Your task to perform on an android device: toggle improve location accuracy Image 0: 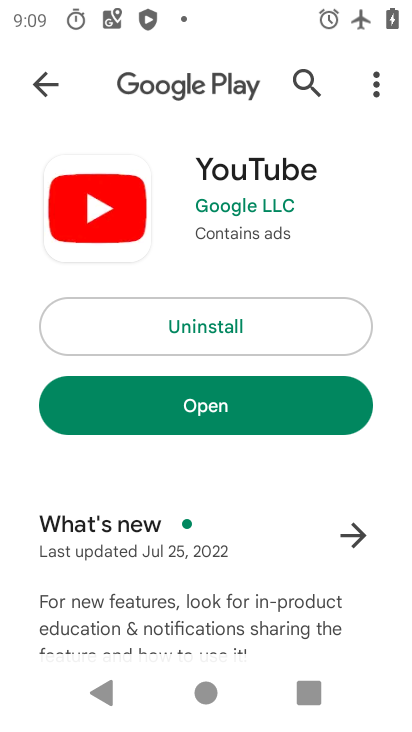
Step 0: press home button
Your task to perform on an android device: toggle improve location accuracy Image 1: 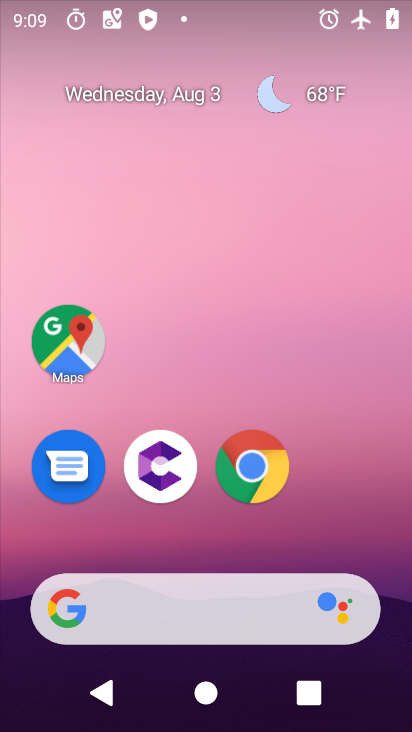
Step 1: drag from (322, 436) to (328, 96)
Your task to perform on an android device: toggle improve location accuracy Image 2: 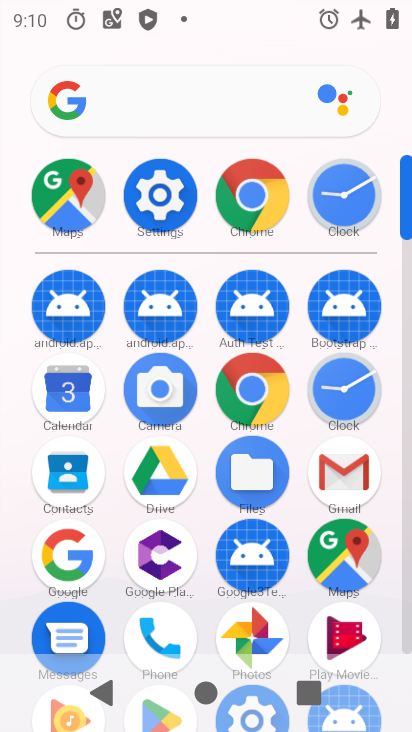
Step 2: click (147, 192)
Your task to perform on an android device: toggle improve location accuracy Image 3: 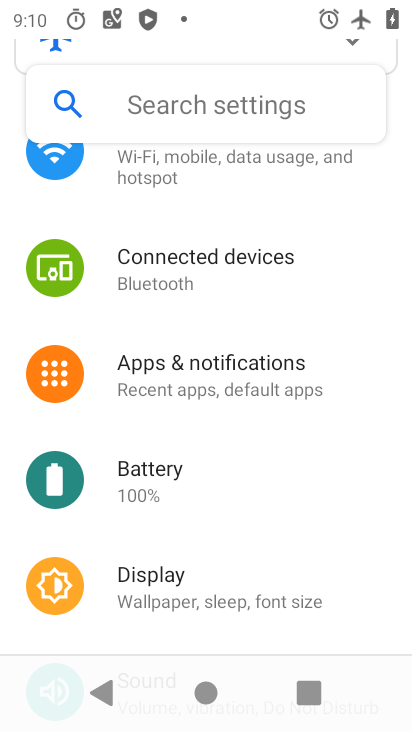
Step 3: drag from (301, 527) to (314, 189)
Your task to perform on an android device: toggle improve location accuracy Image 4: 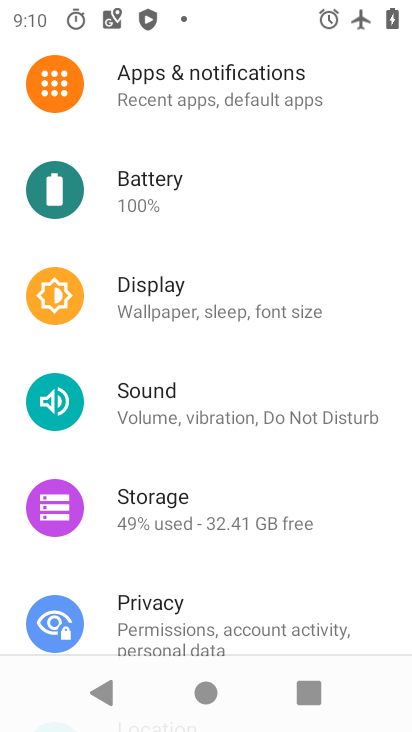
Step 4: drag from (282, 500) to (299, 129)
Your task to perform on an android device: toggle improve location accuracy Image 5: 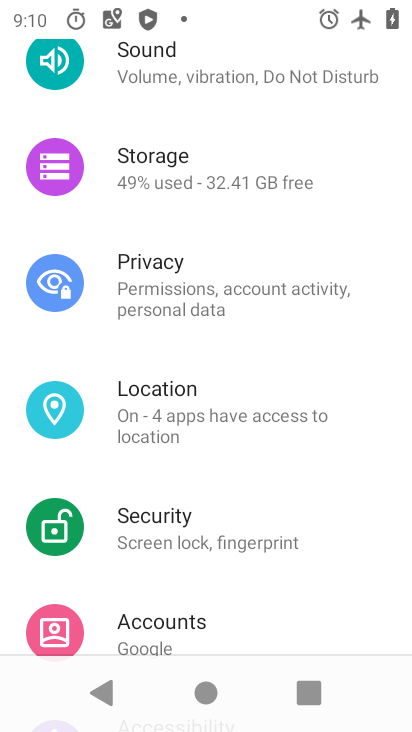
Step 5: click (169, 400)
Your task to perform on an android device: toggle improve location accuracy Image 6: 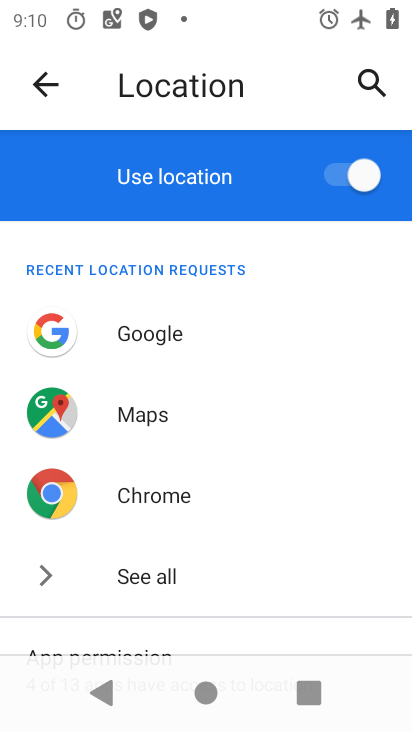
Step 6: drag from (312, 541) to (295, 133)
Your task to perform on an android device: toggle improve location accuracy Image 7: 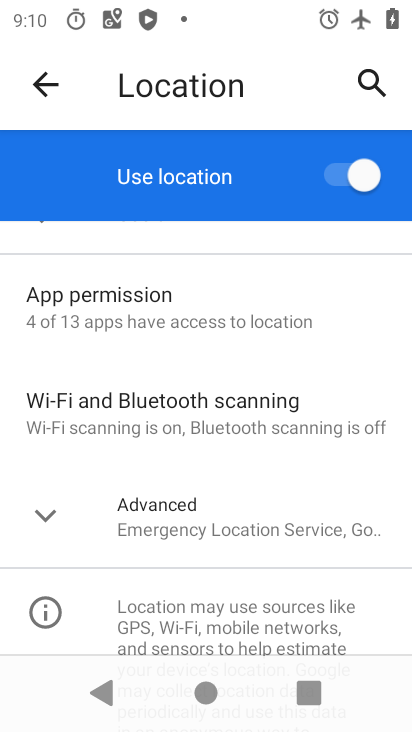
Step 7: click (200, 514)
Your task to perform on an android device: toggle improve location accuracy Image 8: 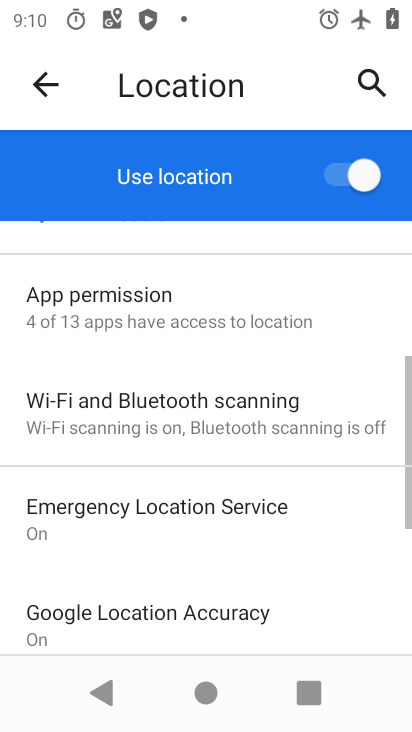
Step 8: drag from (343, 574) to (345, 271)
Your task to perform on an android device: toggle improve location accuracy Image 9: 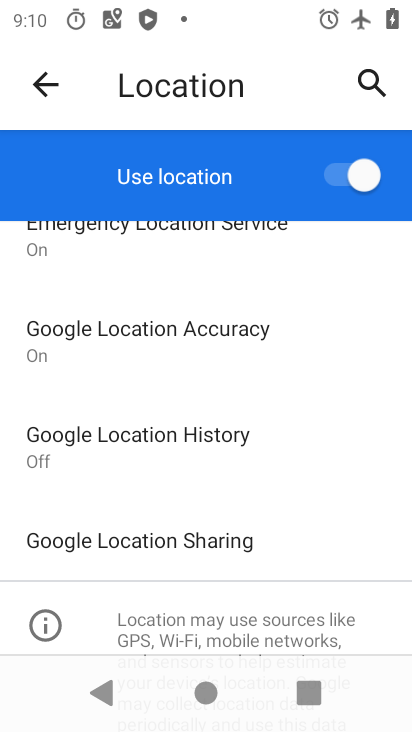
Step 9: click (187, 353)
Your task to perform on an android device: toggle improve location accuracy Image 10: 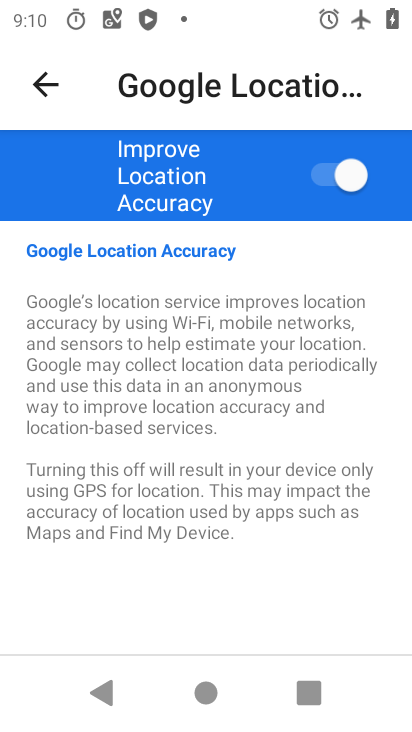
Step 10: click (329, 177)
Your task to perform on an android device: toggle improve location accuracy Image 11: 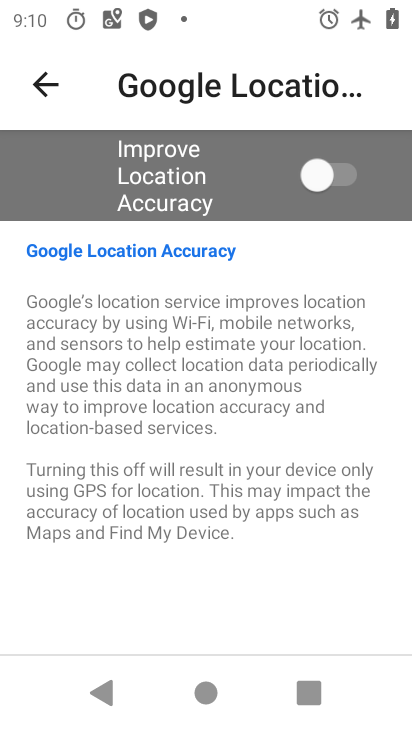
Step 11: task complete